Your task to perform on an android device: delete a single message in the gmail app Image 0: 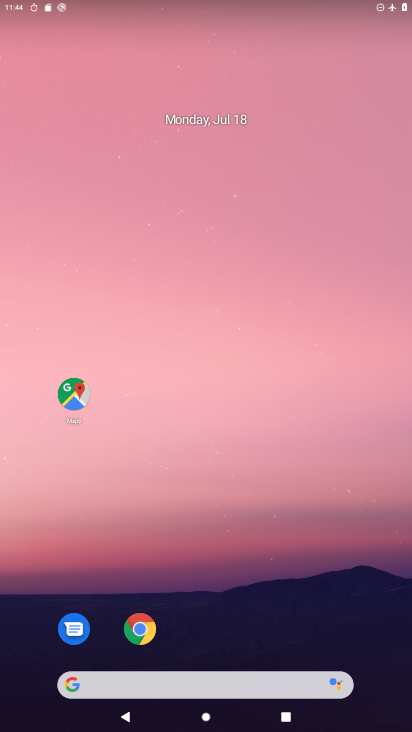
Step 0: drag from (291, 617) to (218, 78)
Your task to perform on an android device: delete a single message in the gmail app Image 1: 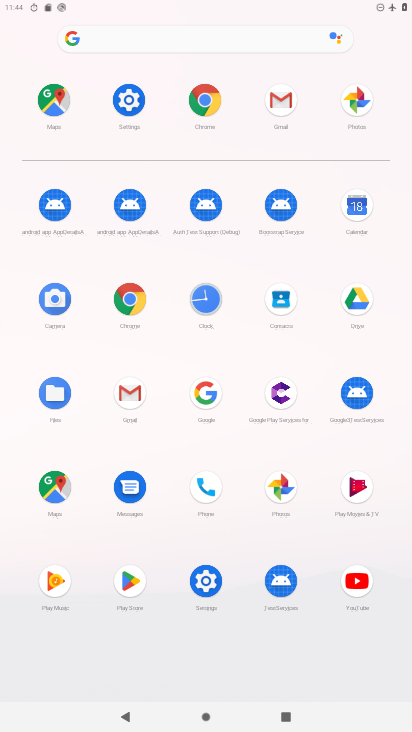
Step 1: click (296, 102)
Your task to perform on an android device: delete a single message in the gmail app Image 2: 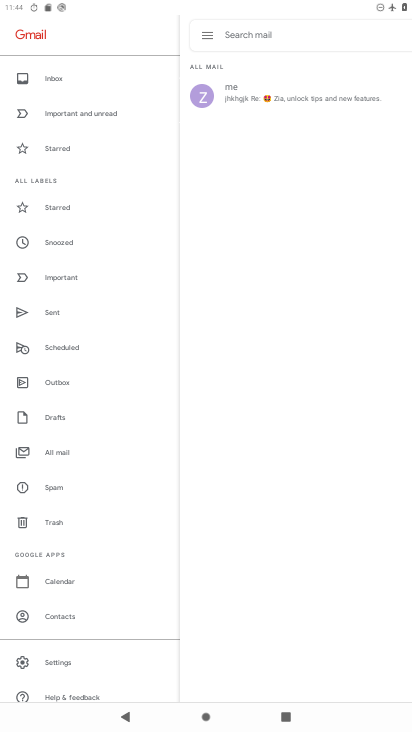
Step 2: click (284, 102)
Your task to perform on an android device: delete a single message in the gmail app Image 3: 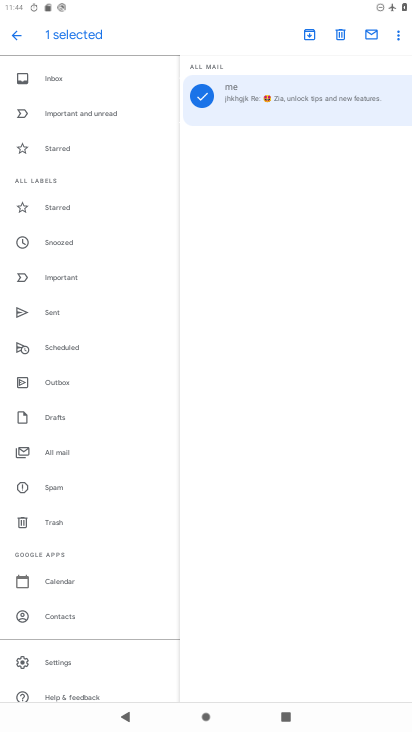
Step 3: click (338, 29)
Your task to perform on an android device: delete a single message in the gmail app Image 4: 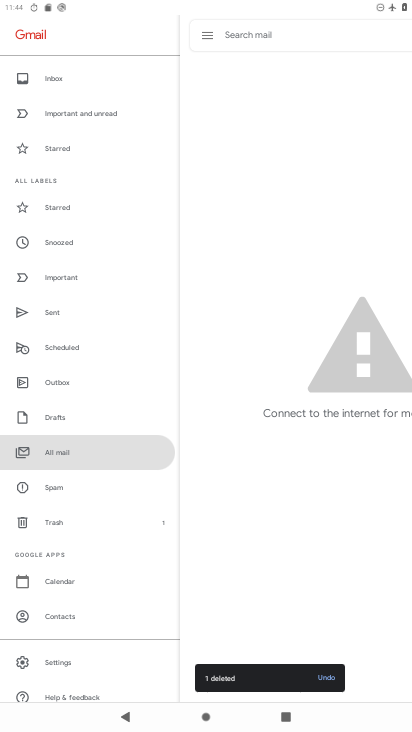
Step 4: task complete